Your task to perform on an android device: Open the calendar app, open the side menu, and click the "Day" option Image 0: 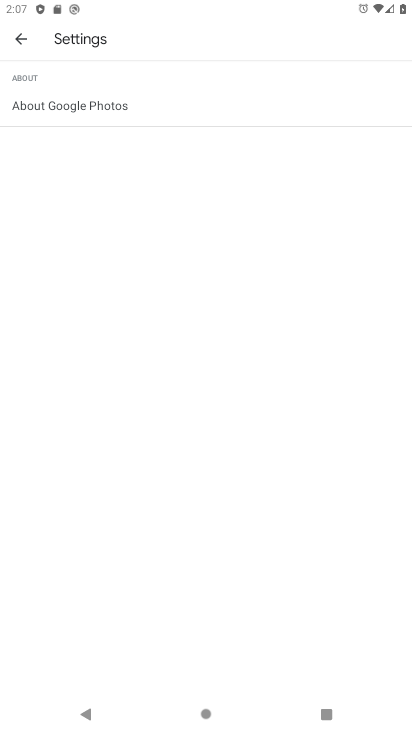
Step 0: press home button
Your task to perform on an android device: Open the calendar app, open the side menu, and click the "Day" option Image 1: 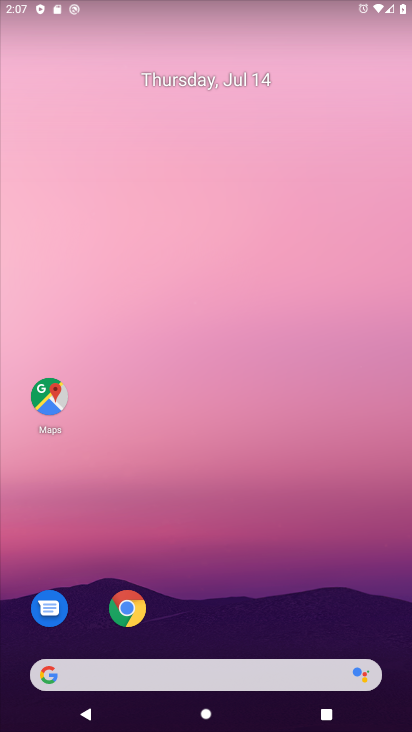
Step 1: drag from (233, 726) to (234, 143)
Your task to perform on an android device: Open the calendar app, open the side menu, and click the "Day" option Image 2: 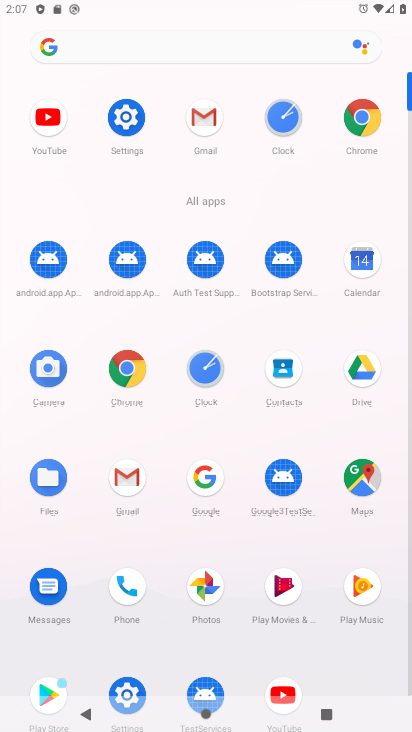
Step 2: click (356, 259)
Your task to perform on an android device: Open the calendar app, open the side menu, and click the "Day" option Image 3: 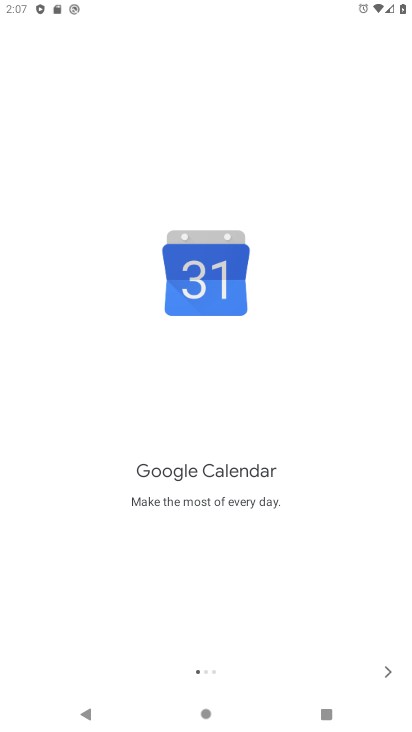
Step 3: click (385, 669)
Your task to perform on an android device: Open the calendar app, open the side menu, and click the "Day" option Image 4: 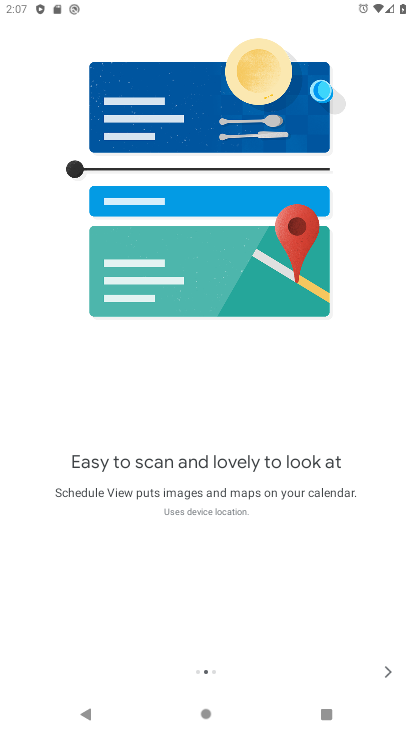
Step 4: click (385, 669)
Your task to perform on an android device: Open the calendar app, open the side menu, and click the "Day" option Image 5: 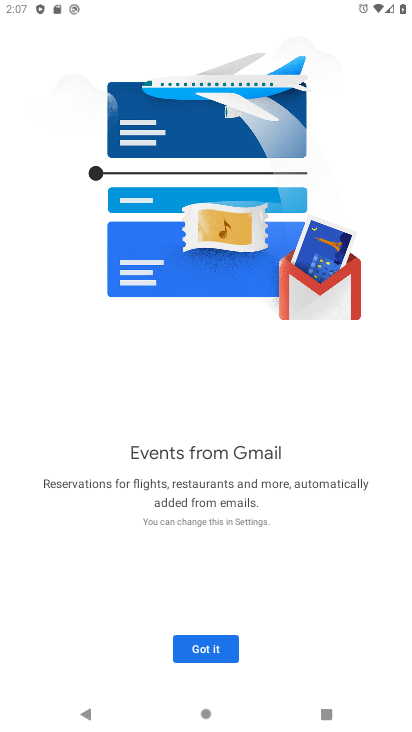
Step 5: click (188, 646)
Your task to perform on an android device: Open the calendar app, open the side menu, and click the "Day" option Image 6: 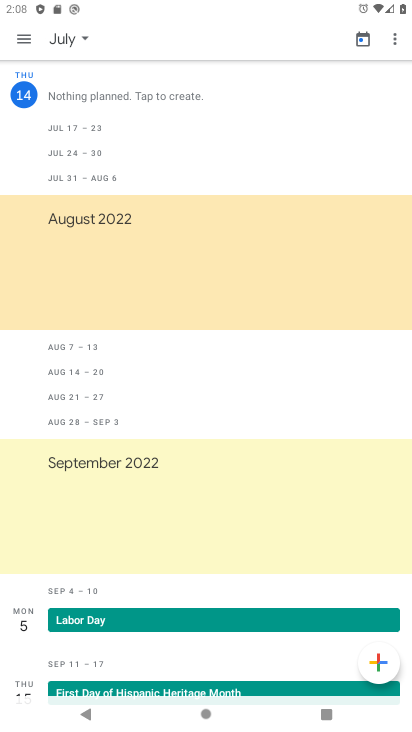
Step 6: click (24, 35)
Your task to perform on an android device: Open the calendar app, open the side menu, and click the "Day" option Image 7: 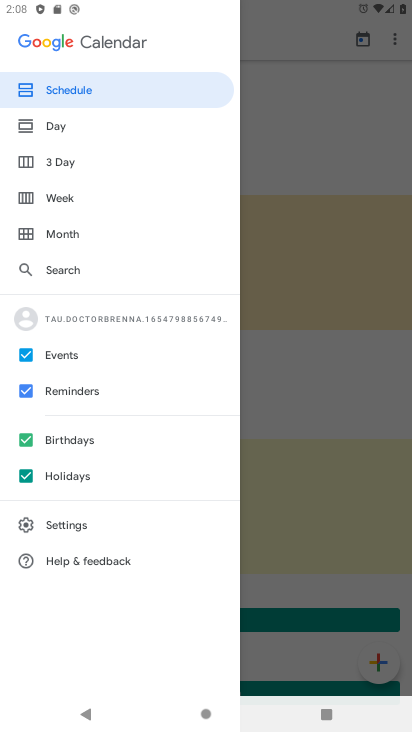
Step 7: click (52, 121)
Your task to perform on an android device: Open the calendar app, open the side menu, and click the "Day" option Image 8: 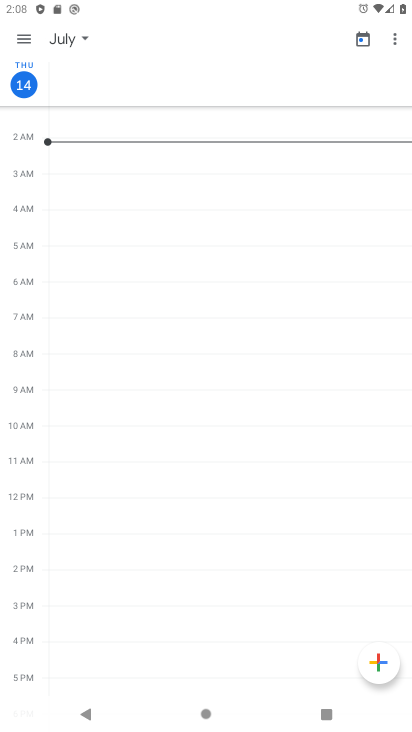
Step 8: task complete